Your task to perform on an android device: open app "Lyft - Rideshare, Bikes, Scooters & Transit" (install if not already installed) Image 0: 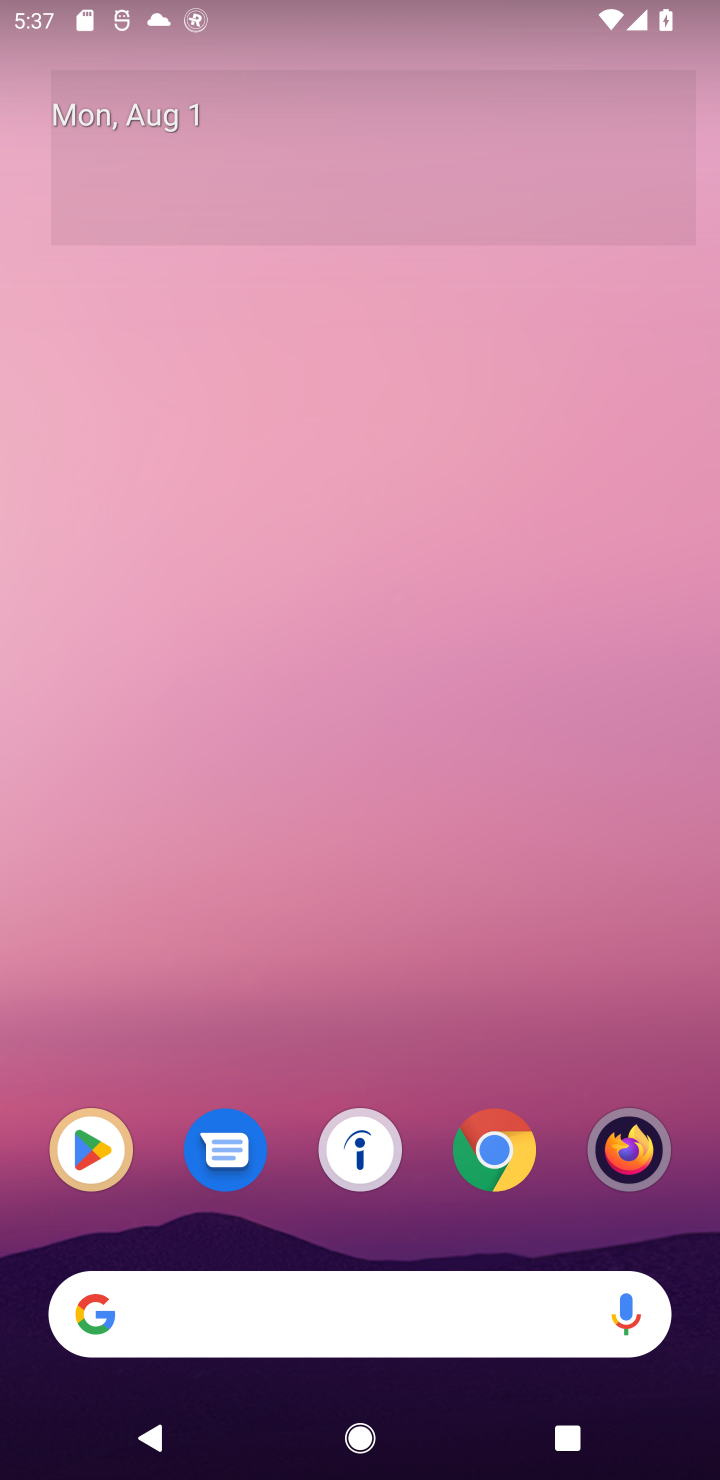
Step 0: drag from (414, 1184) to (399, 110)
Your task to perform on an android device: open app "Lyft - Rideshare, Bikes, Scooters & Transit" (install if not already installed) Image 1: 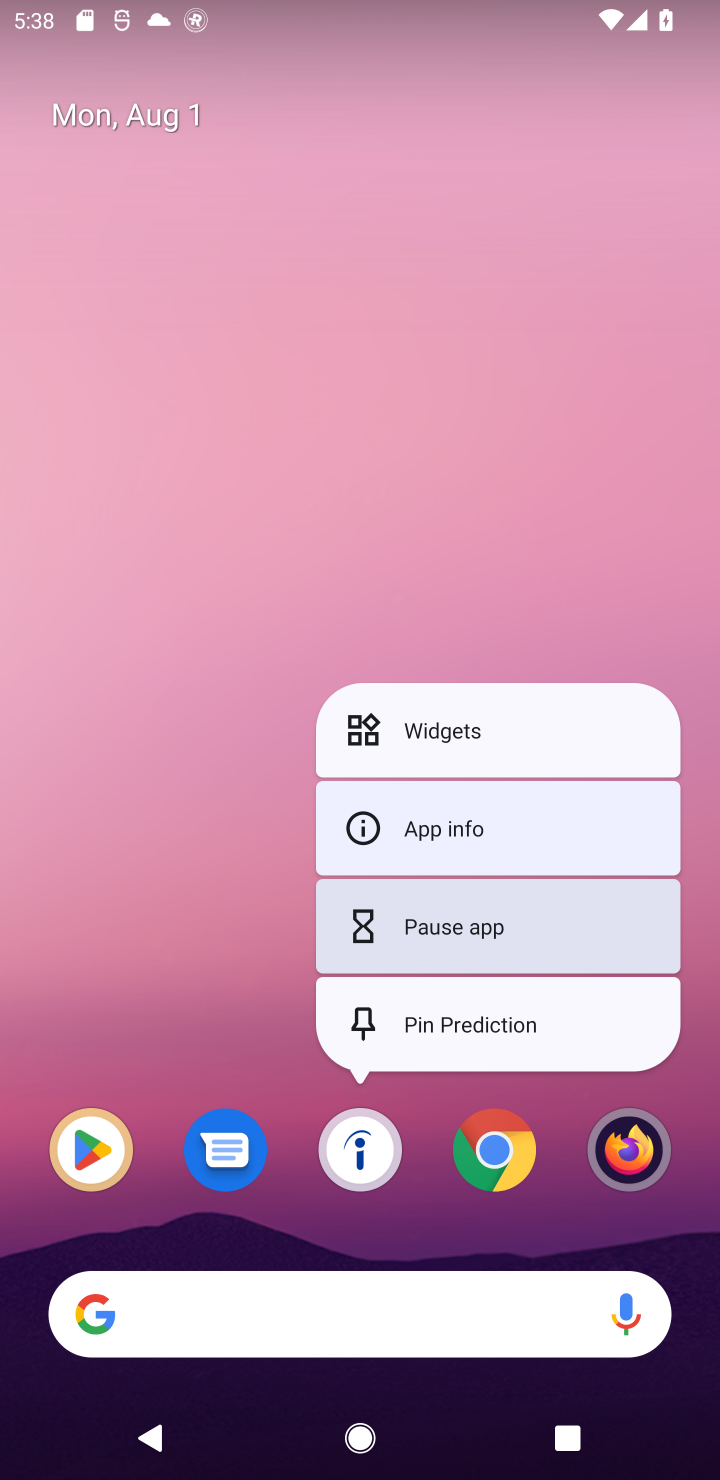
Step 1: click (216, 594)
Your task to perform on an android device: open app "Lyft - Rideshare, Bikes, Scooters & Transit" (install if not already installed) Image 2: 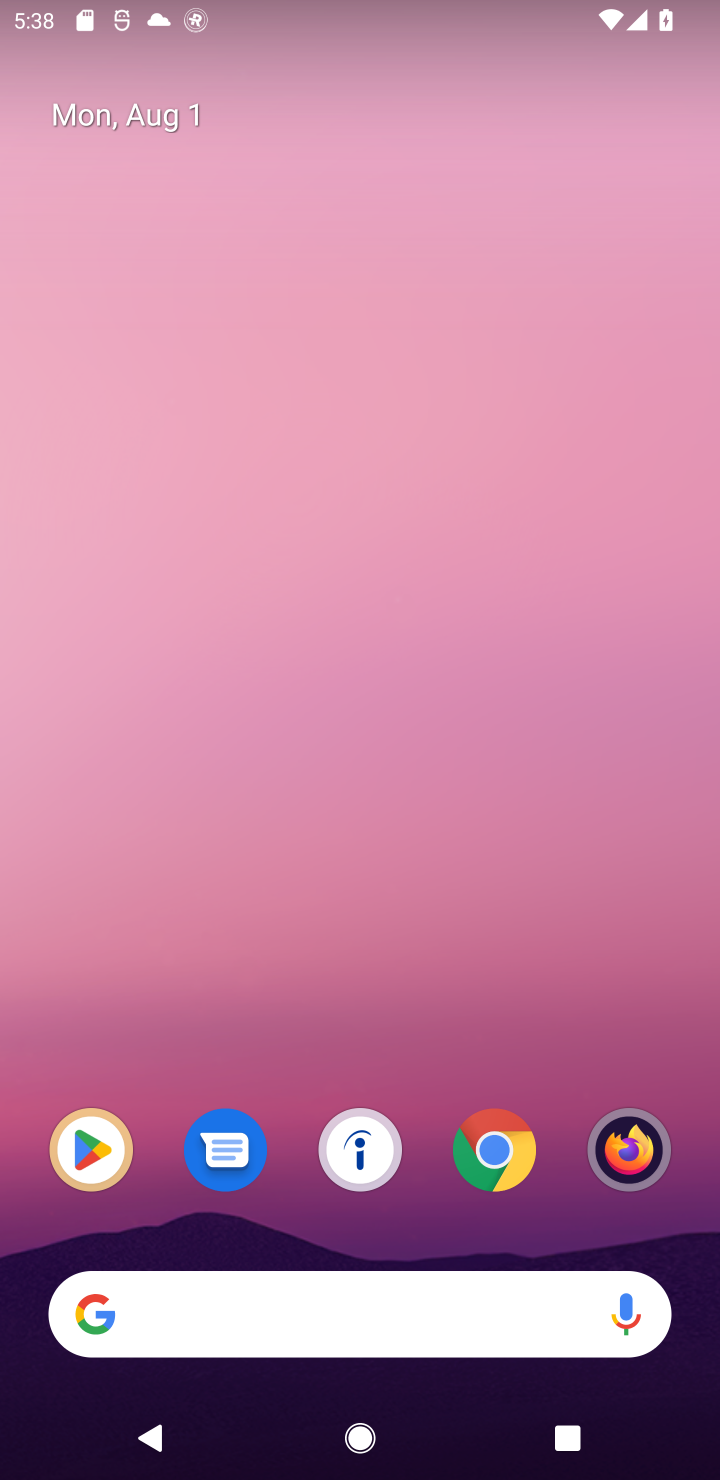
Step 2: task complete